Your task to perform on an android device: Open location settings Image 0: 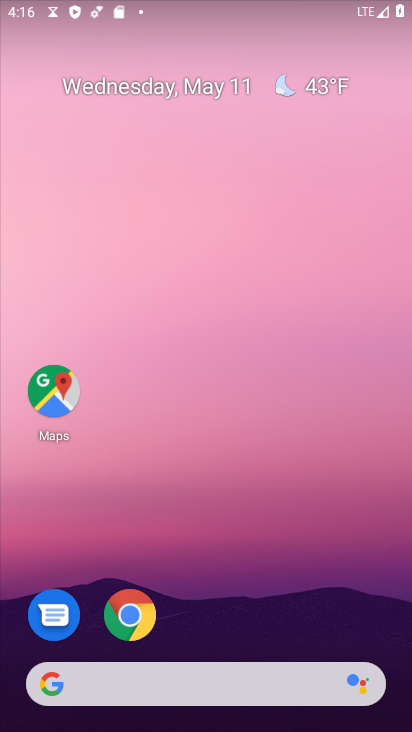
Step 0: drag from (293, 610) to (263, 14)
Your task to perform on an android device: Open location settings Image 1: 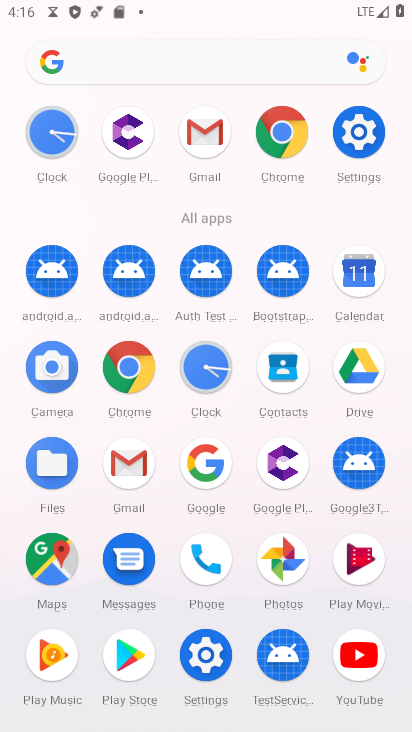
Step 1: drag from (2, 557) to (4, 149)
Your task to perform on an android device: Open location settings Image 2: 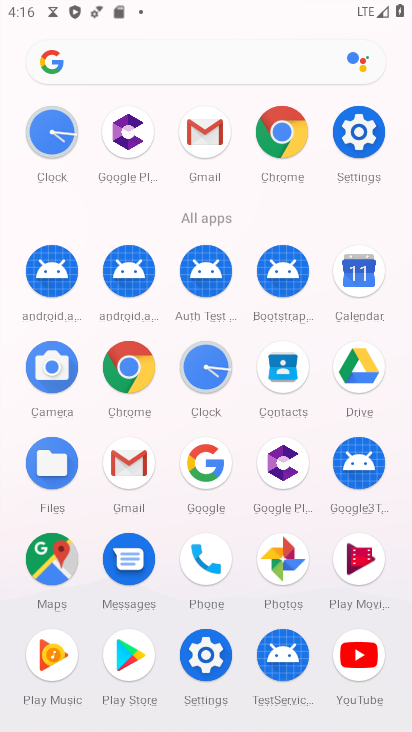
Step 2: click (201, 655)
Your task to perform on an android device: Open location settings Image 3: 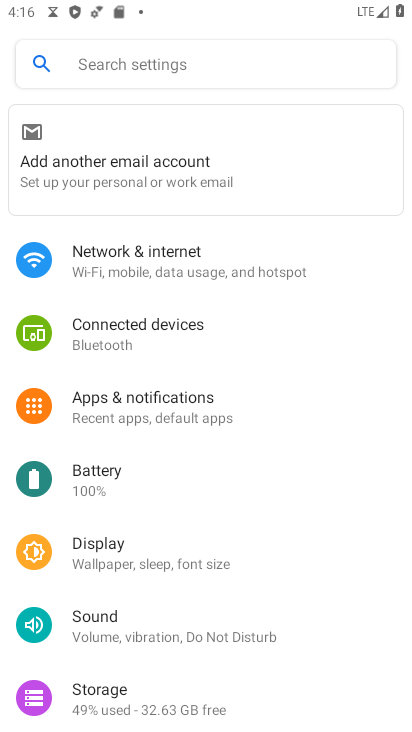
Step 3: drag from (393, 615) to (358, 172)
Your task to perform on an android device: Open location settings Image 4: 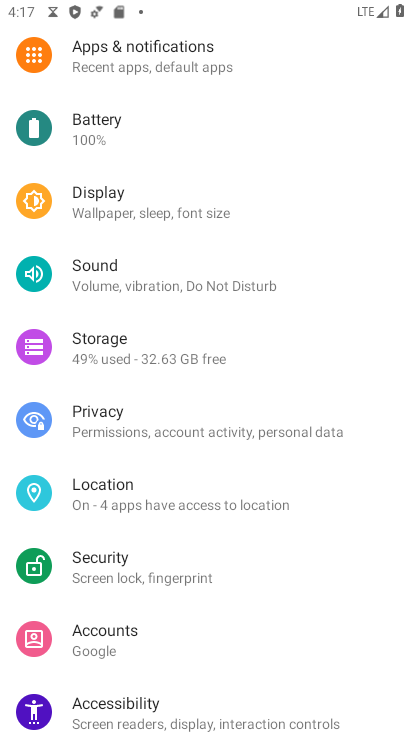
Step 4: click (153, 491)
Your task to perform on an android device: Open location settings Image 5: 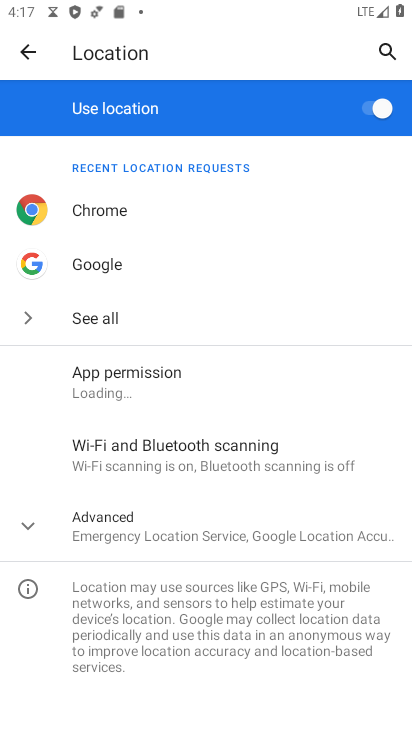
Step 5: click (44, 524)
Your task to perform on an android device: Open location settings Image 6: 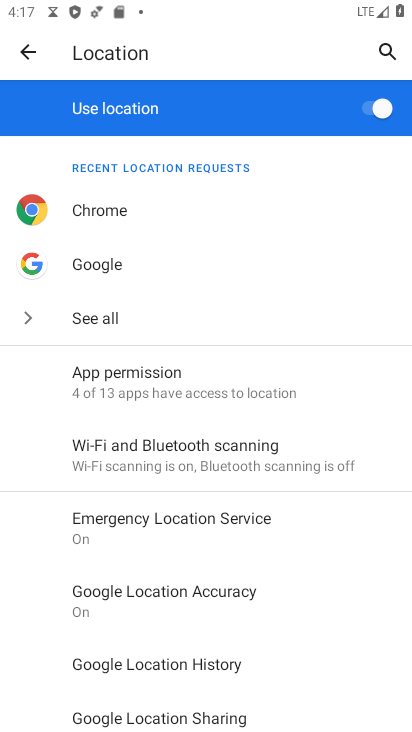
Step 6: task complete